Your task to perform on an android device: Go to display settings Image 0: 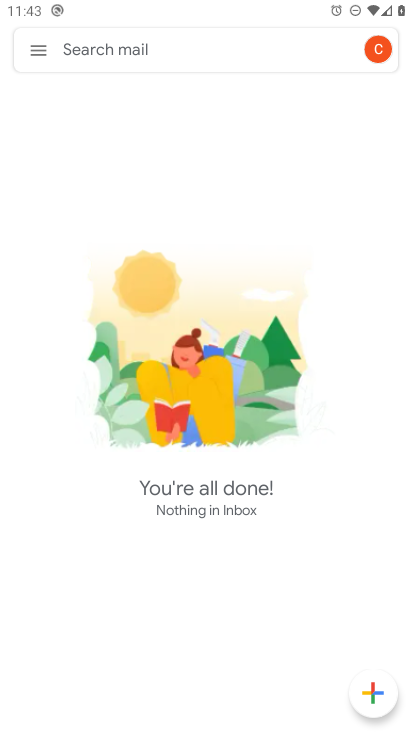
Step 0: press home button
Your task to perform on an android device: Go to display settings Image 1: 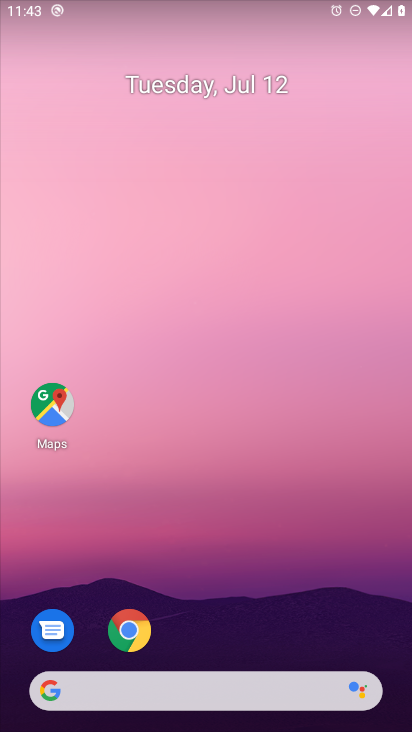
Step 1: drag from (275, 618) to (256, 75)
Your task to perform on an android device: Go to display settings Image 2: 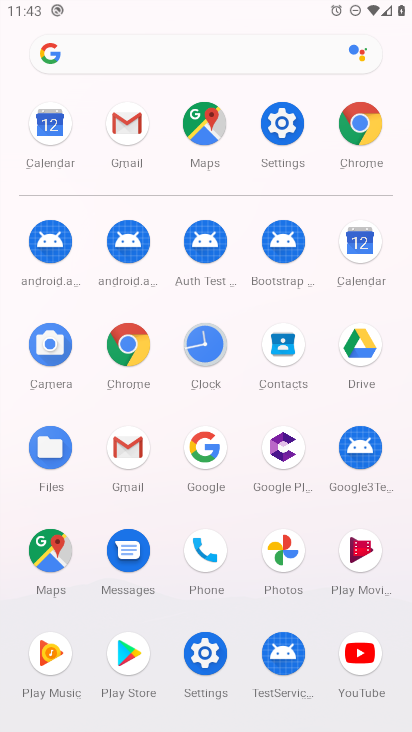
Step 2: click (271, 117)
Your task to perform on an android device: Go to display settings Image 3: 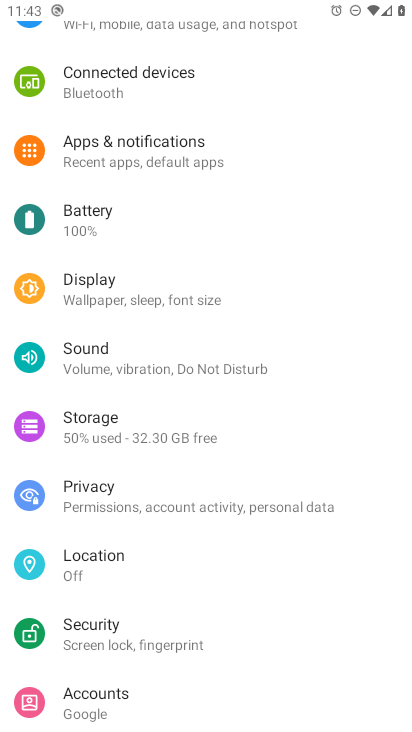
Step 3: click (126, 296)
Your task to perform on an android device: Go to display settings Image 4: 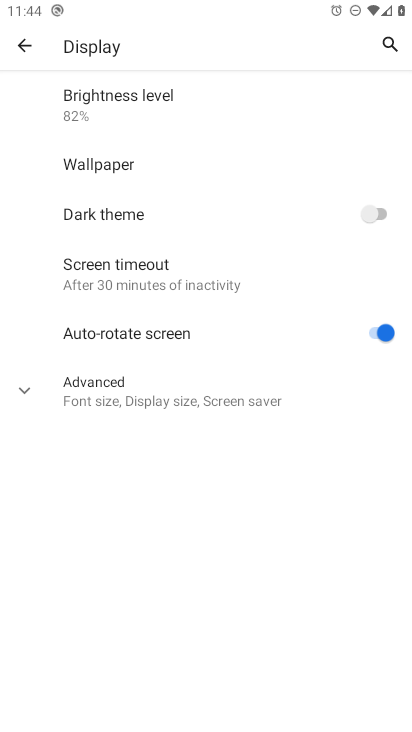
Step 4: task complete